Your task to perform on an android device: turn off translation in the chrome app Image 0: 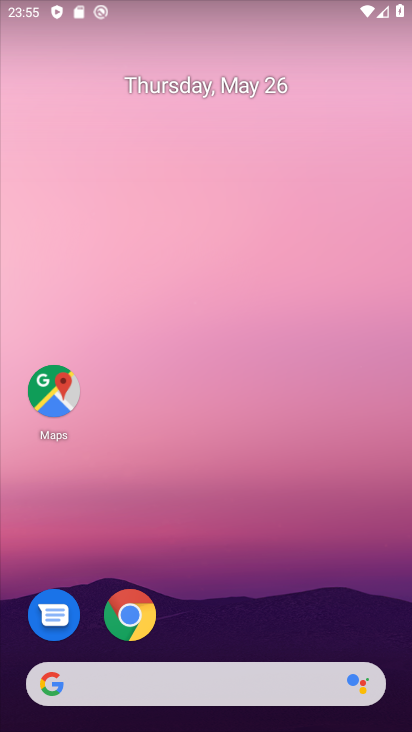
Step 0: click (126, 638)
Your task to perform on an android device: turn off translation in the chrome app Image 1: 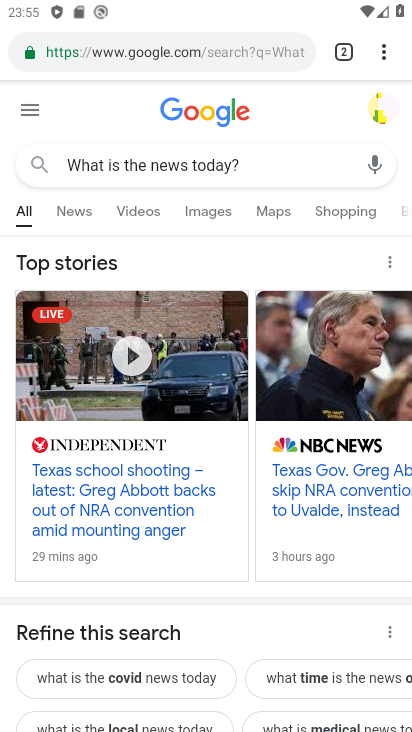
Step 1: drag from (387, 56) to (211, 579)
Your task to perform on an android device: turn off translation in the chrome app Image 2: 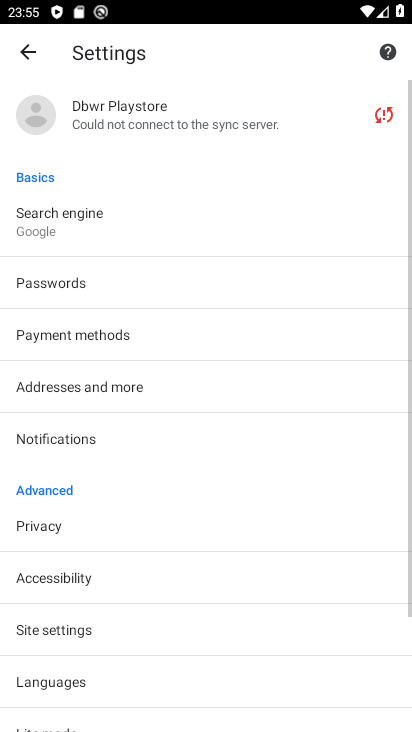
Step 2: click (75, 665)
Your task to perform on an android device: turn off translation in the chrome app Image 3: 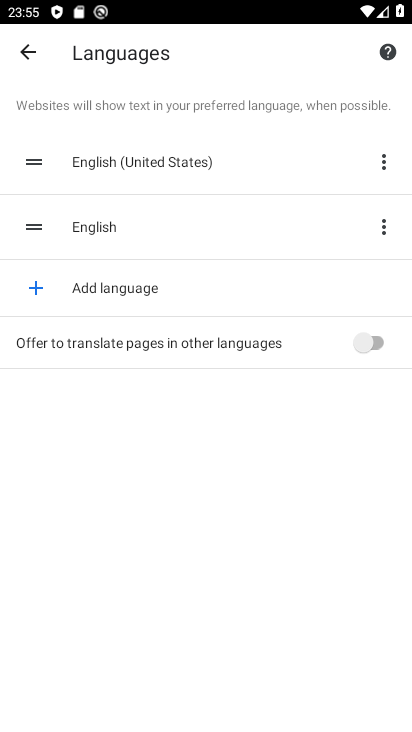
Step 3: task complete